Your task to perform on an android device: What's the weather going to be this weekend? Image 0: 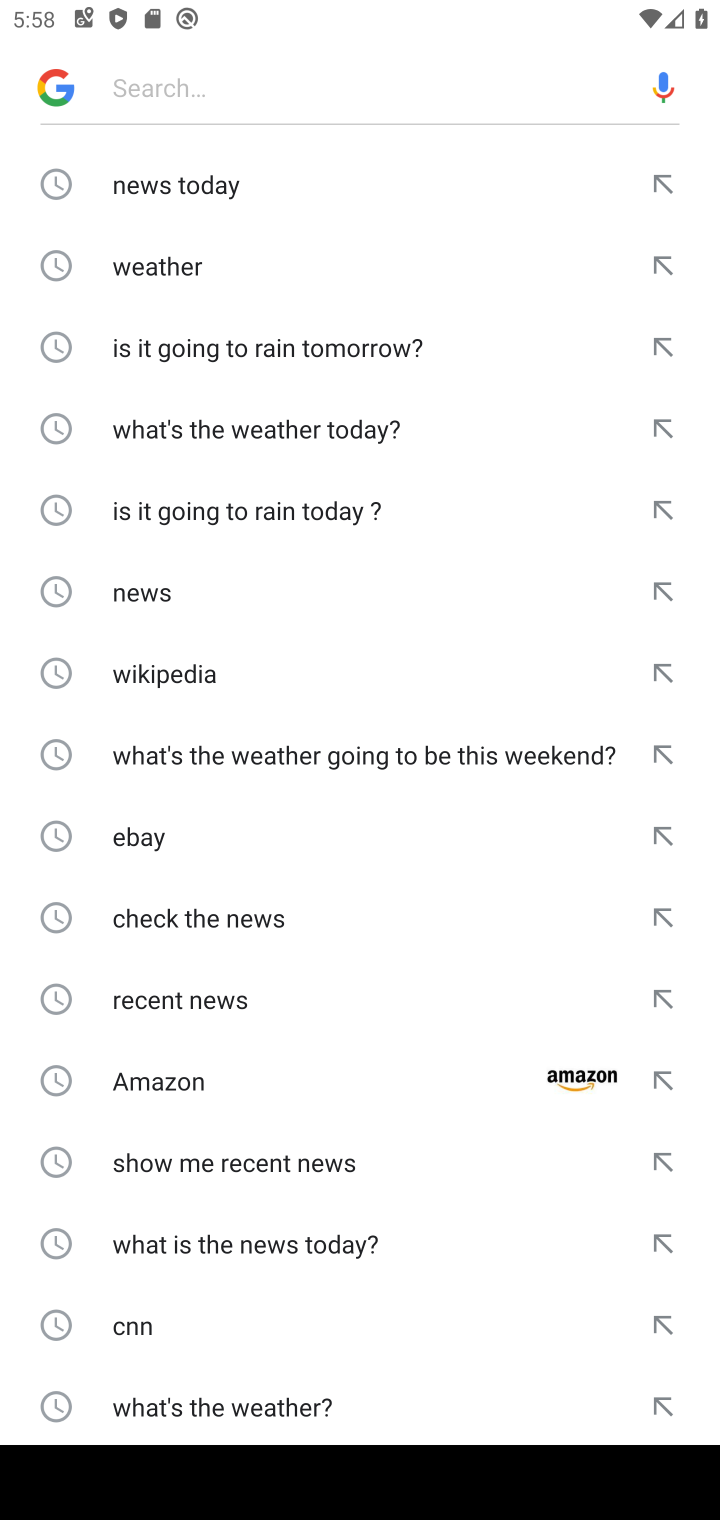
Step 0: press back button
Your task to perform on an android device: What's the weather going to be this weekend? Image 1: 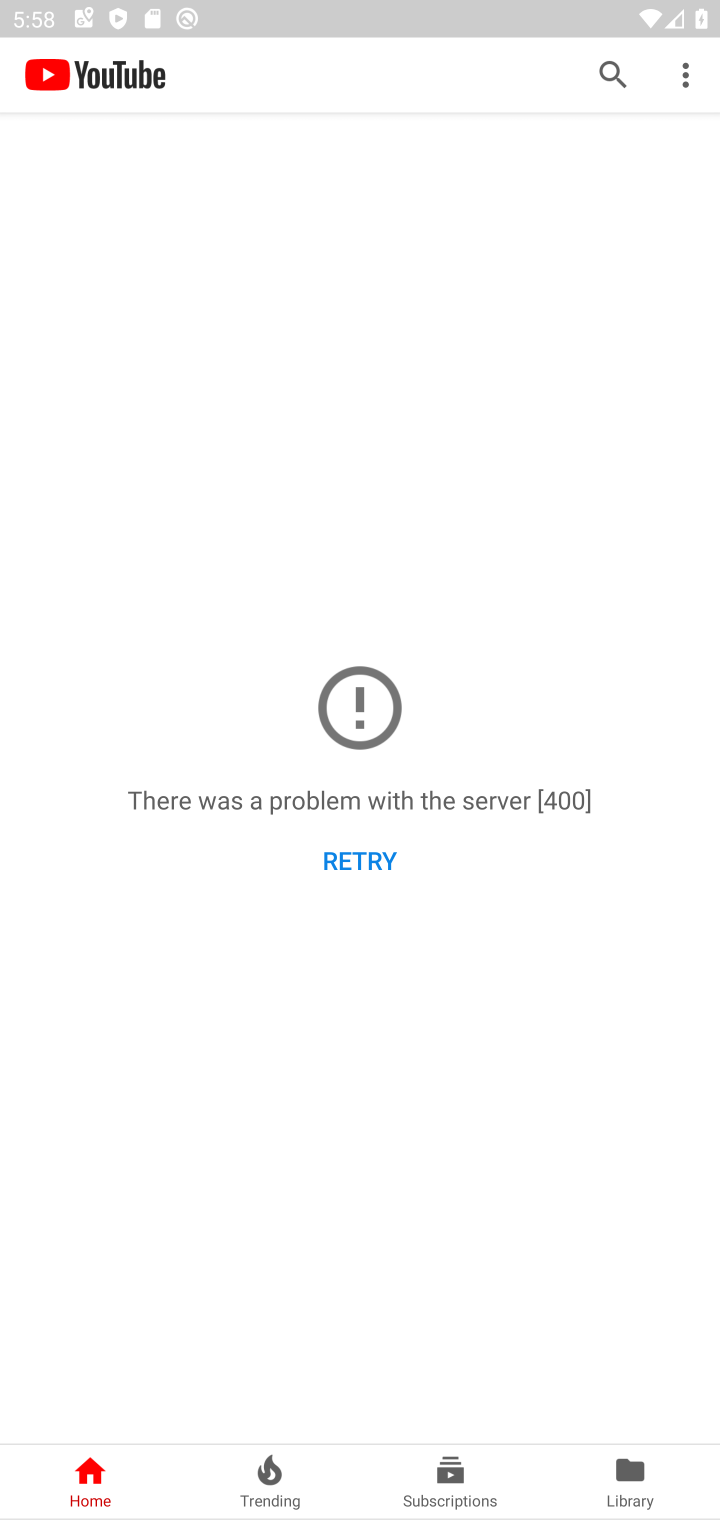
Step 1: press home button
Your task to perform on an android device: What's the weather going to be this weekend? Image 2: 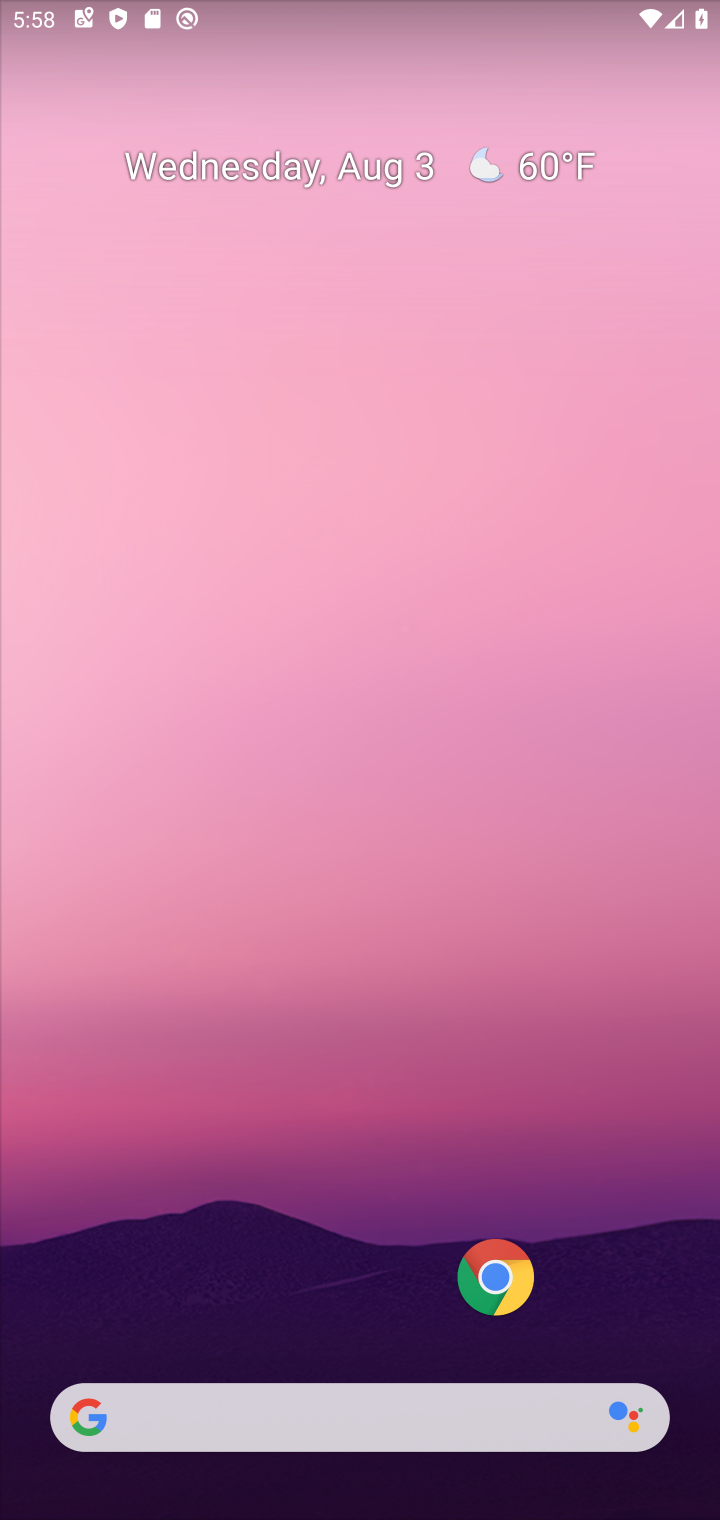
Step 2: click (498, 172)
Your task to perform on an android device: What's the weather going to be this weekend? Image 3: 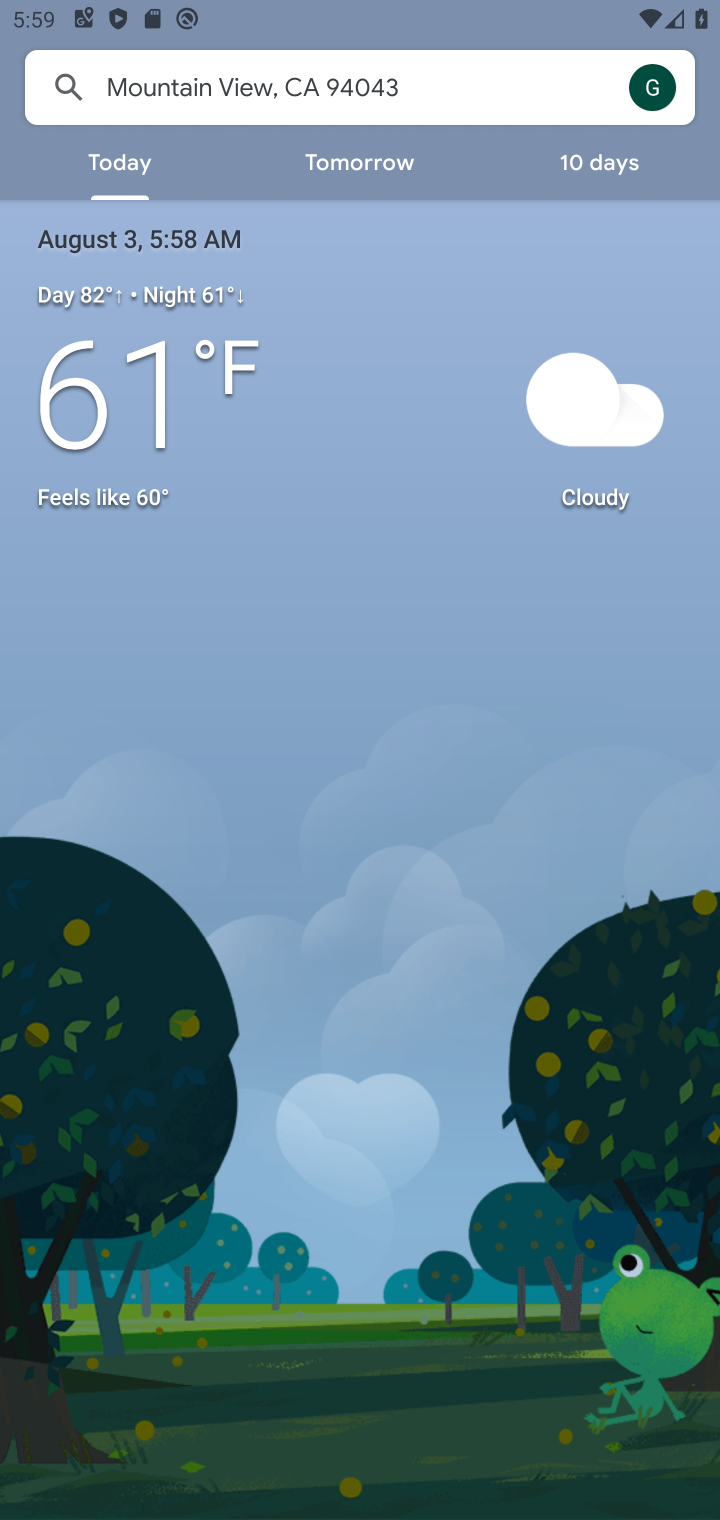
Step 3: click (593, 138)
Your task to perform on an android device: What's the weather going to be this weekend? Image 4: 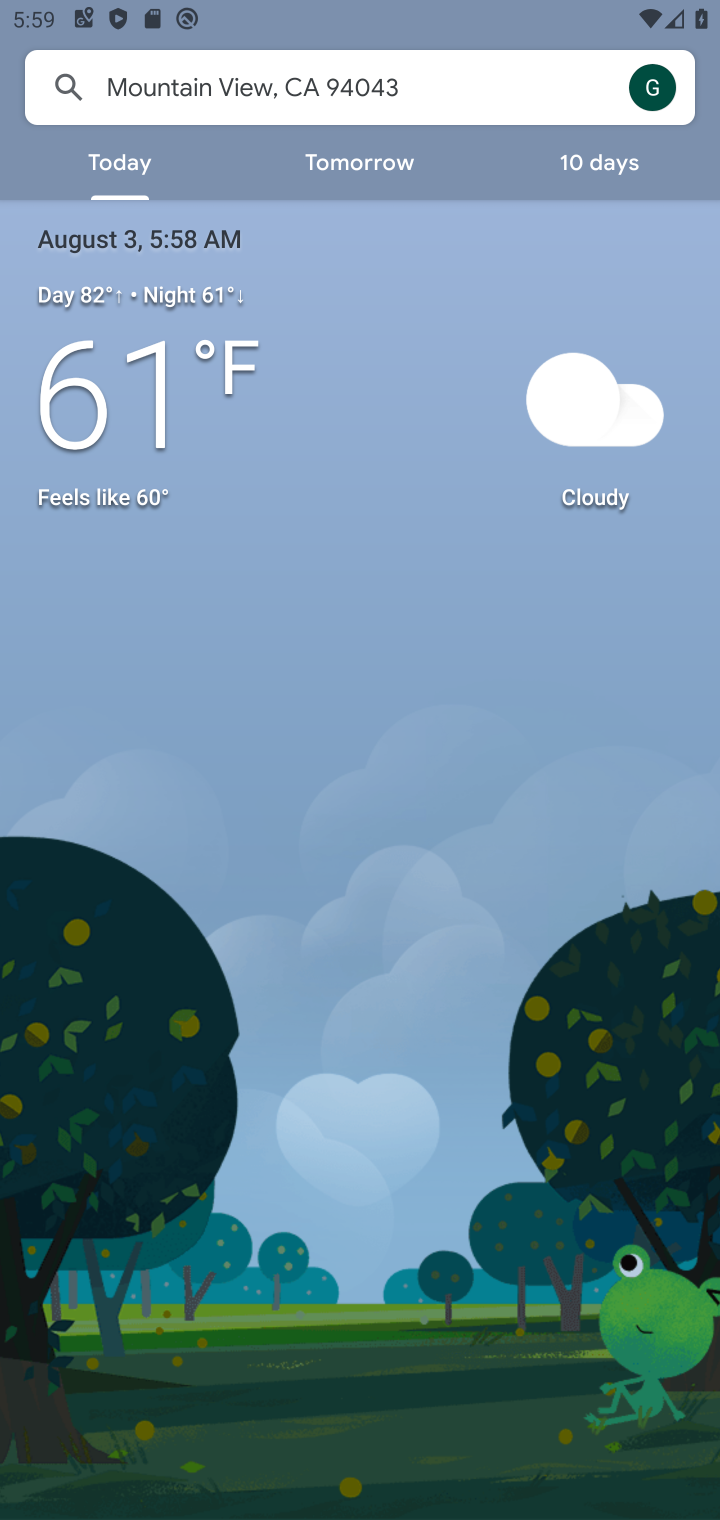
Step 4: click (595, 165)
Your task to perform on an android device: What's the weather going to be this weekend? Image 5: 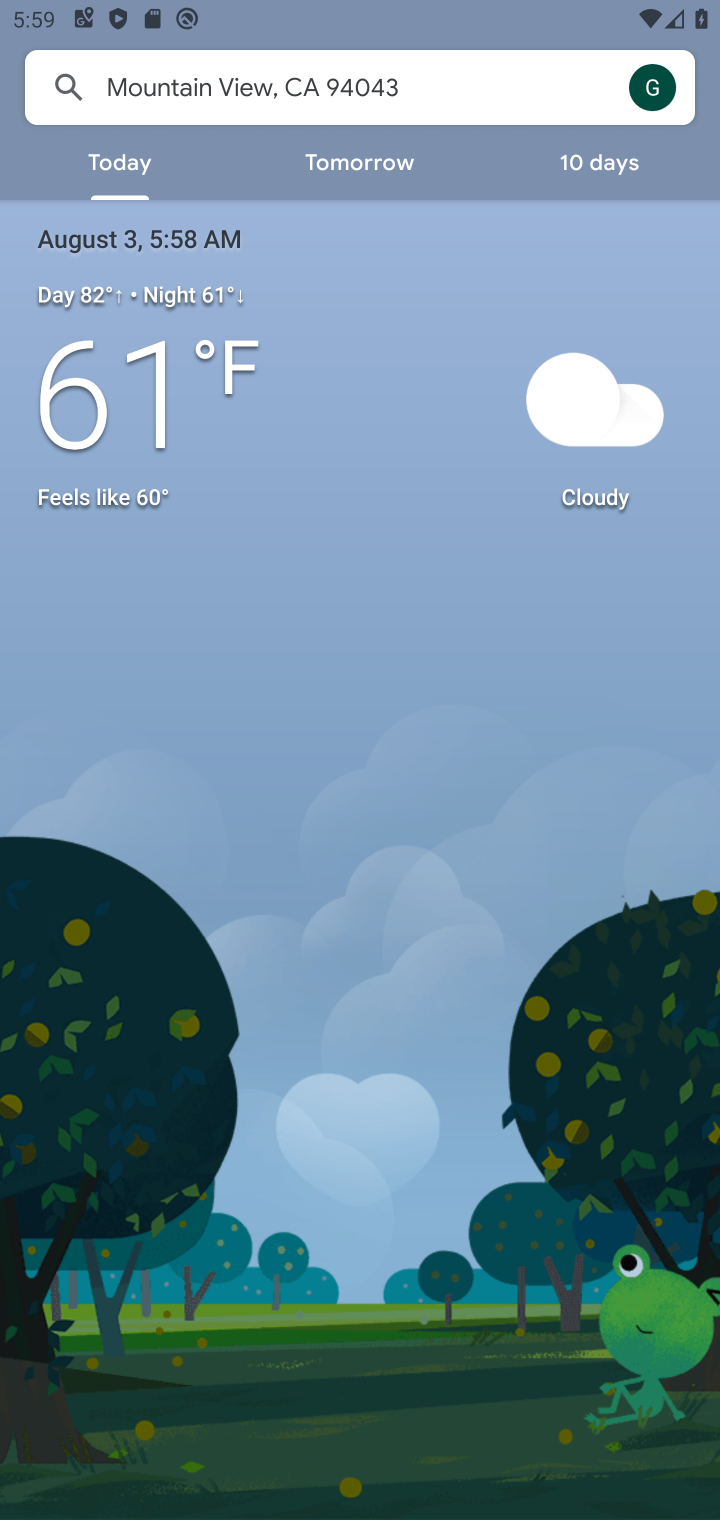
Step 5: click (560, 165)
Your task to perform on an android device: What's the weather going to be this weekend? Image 6: 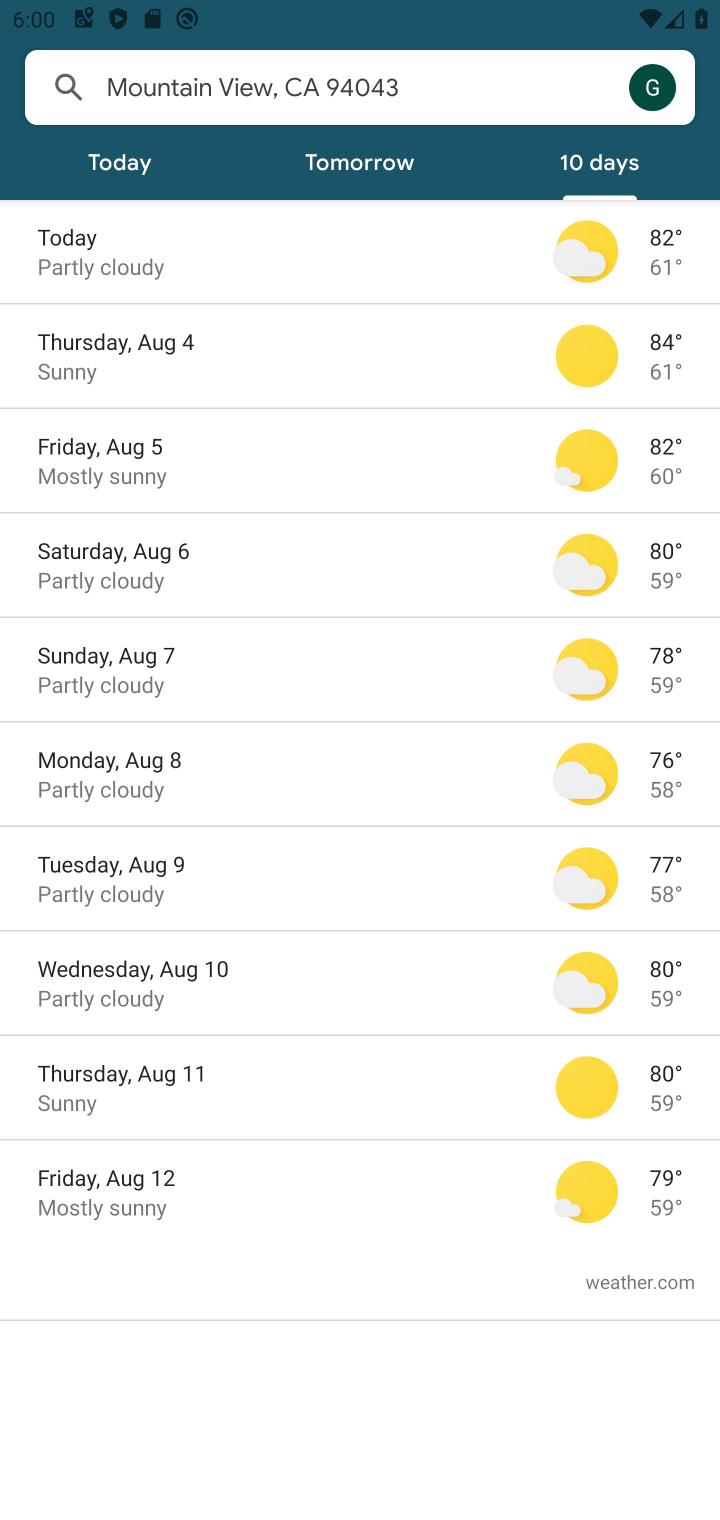
Step 6: task complete